Your task to perform on an android device: Open settings on Google Maps Image 0: 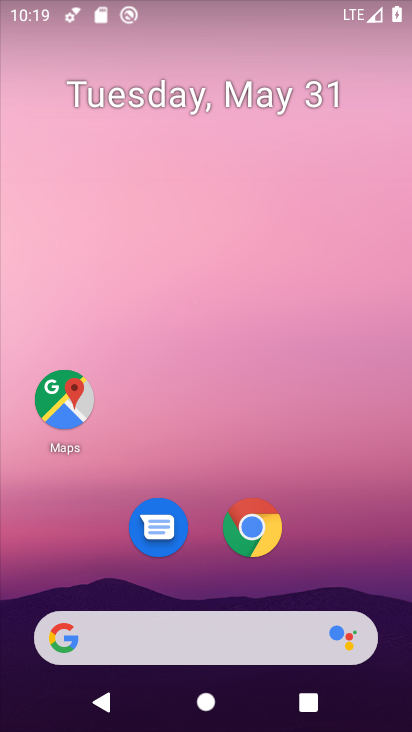
Step 0: click (61, 395)
Your task to perform on an android device: Open settings on Google Maps Image 1: 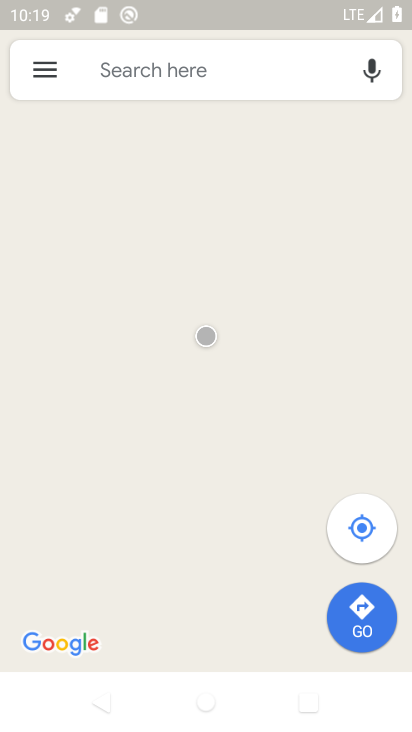
Step 1: click (37, 75)
Your task to perform on an android device: Open settings on Google Maps Image 2: 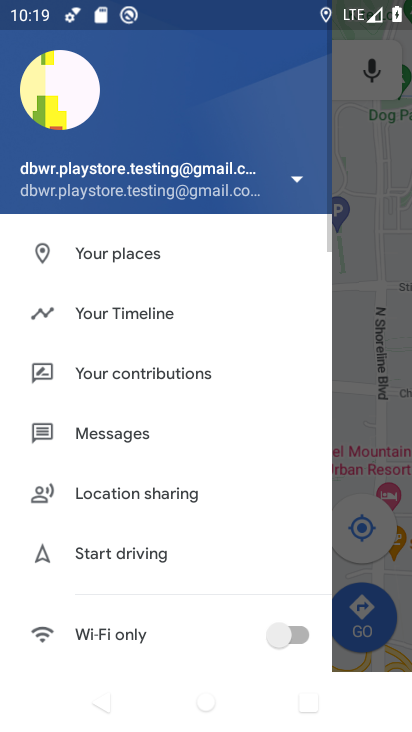
Step 2: drag from (158, 583) to (133, 137)
Your task to perform on an android device: Open settings on Google Maps Image 3: 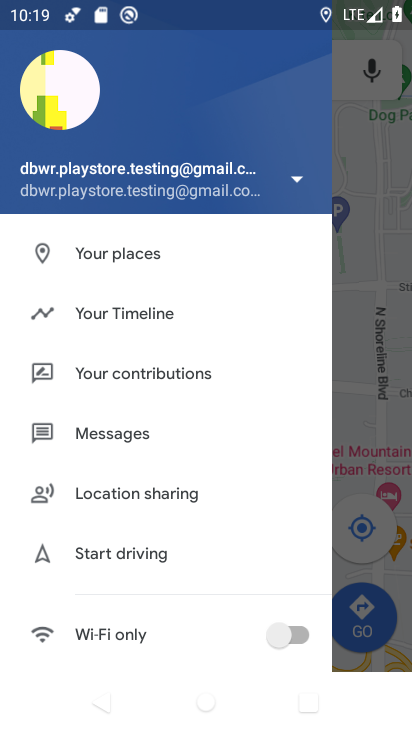
Step 3: drag from (184, 458) to (162, 62)
Your task to perform on an android device: Open settings on Google Maps Image 4: 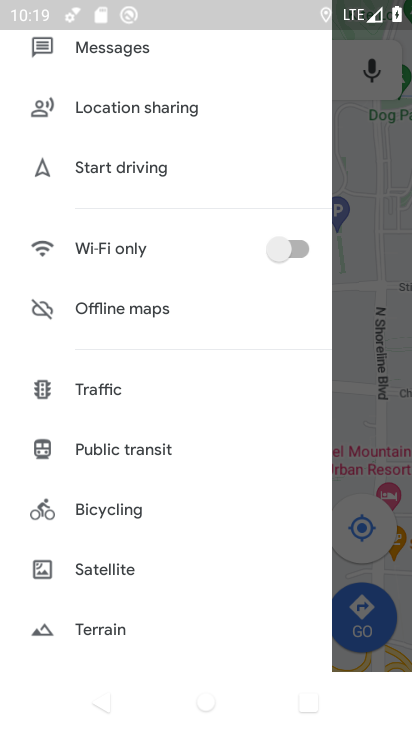
Step 4: drag from (120, 588) to (121, 314)
Your task to perform on an android device: Open settings on Google Maps Image 5: 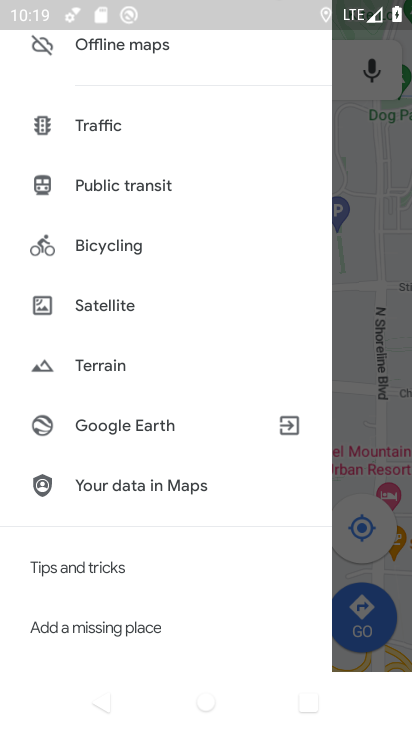
Step 5: drag from (108, 541) to (109, 312)
Your task to perform on an android device: Open settings on Google Maps Image 6: 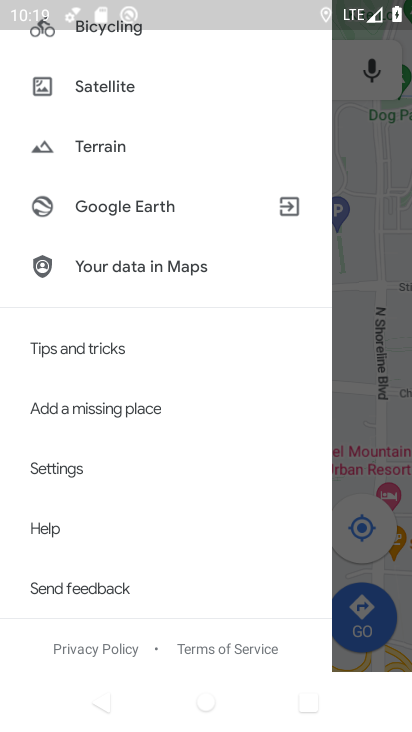
Step 6: click (57, 476)
Your task to perform on an android device: Open settings on Google Maps Image 7: 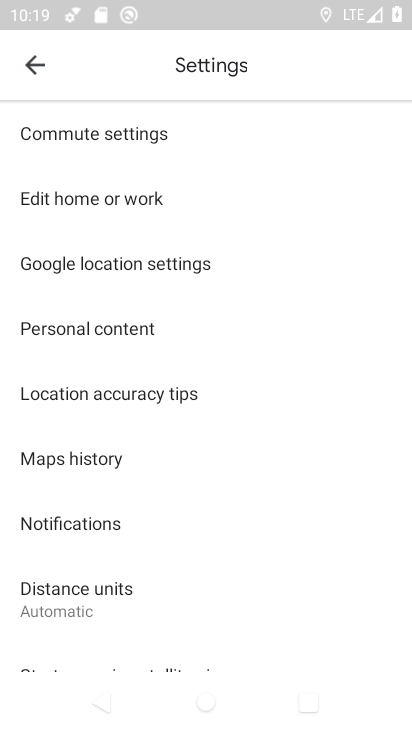
Step 7: task complete